Your task to perform on an android device: toggle javascript in the chrome app Image 0: 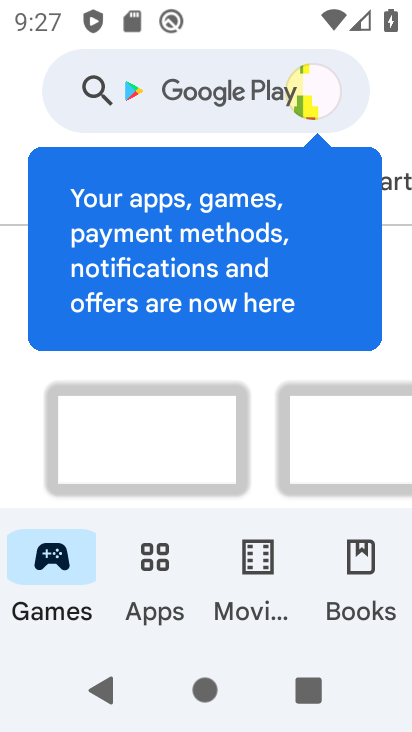
Step 0: press home button
Your task to perform on an android device: toggle javascript in the chrome app Image 1: 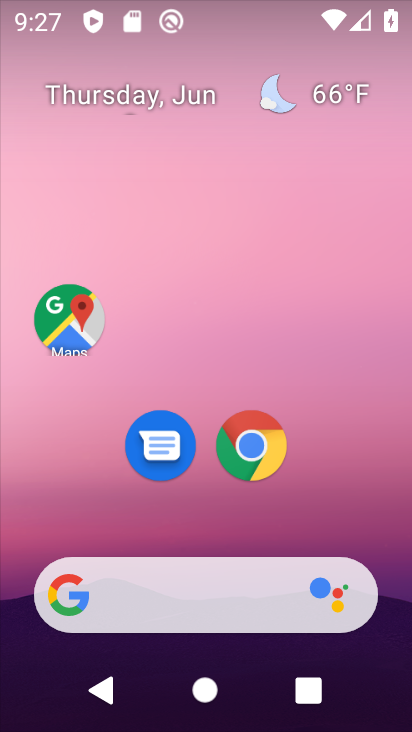
Step 1: click (259, 447)
Your task to perform on an android device: toggle javascript in the chrome app Image 2: 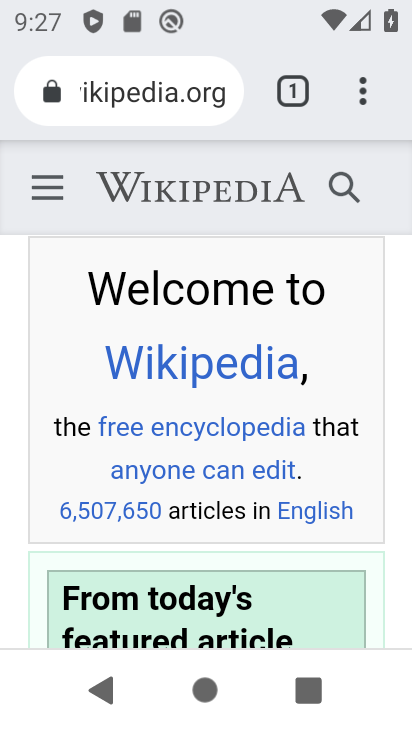
Step 2: click (358, 92)
Your task to perform on an android device: toggle javascript in the chrome app Image 3: 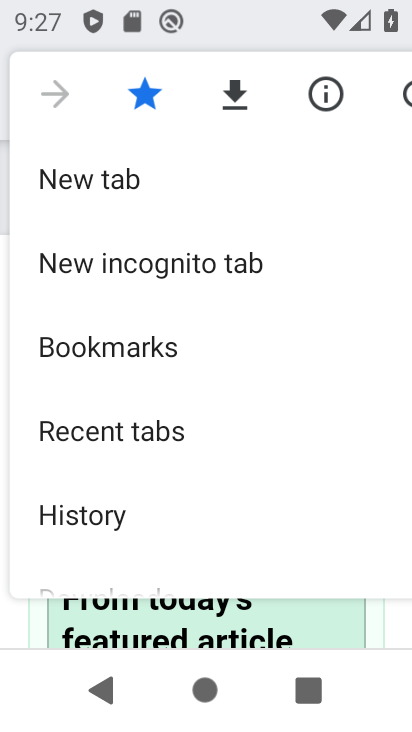
Step 3: drag from (142, 538) to (132, 174)
Your task to perform on an android device: toggle javascript in the chrome app Image 4: 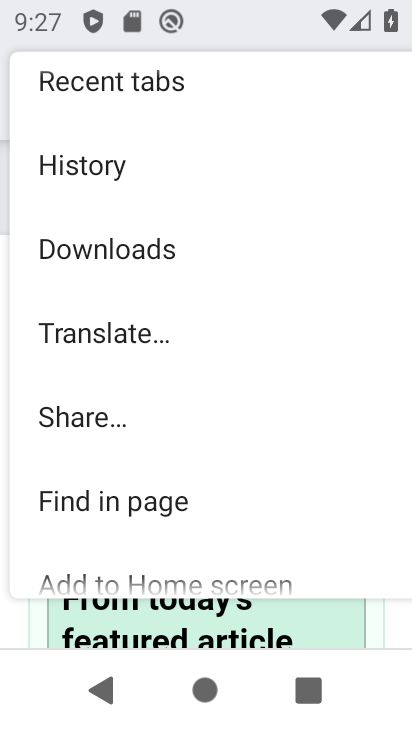
Step 4: drag from (119, 502) to (125, 97)
Your task to perform on an android device: toggle javascript in the chrome app Image 5: 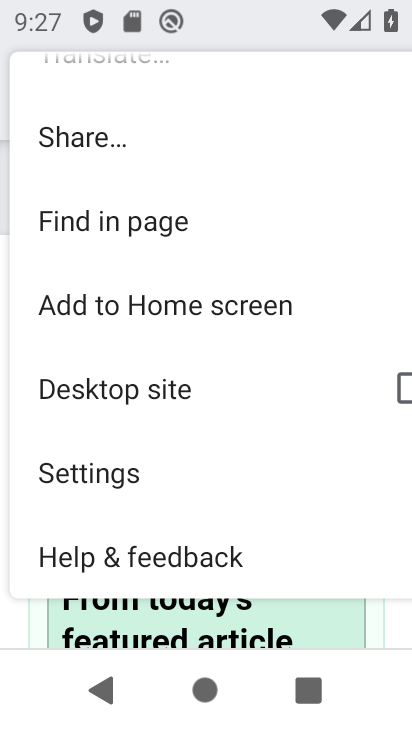
Step 5: click (99, 480)
Your task to perform on an android device: toggle javascript in the chrome app Image 6: 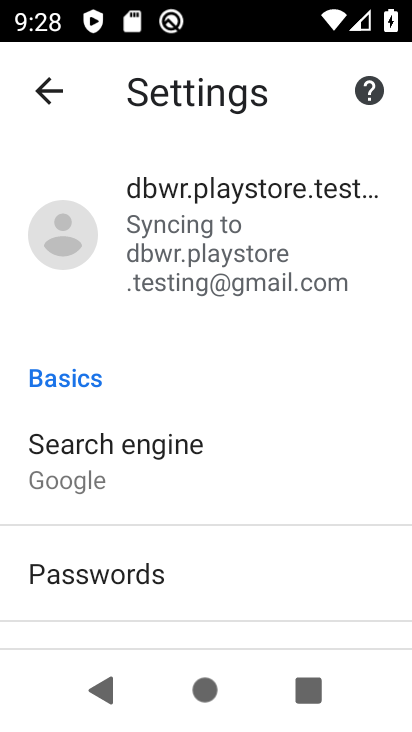
Step 6: drag from (152, 559) to (181, 203)
Your task to perform on an android device: toggle javascript in the chrome app Image 7: 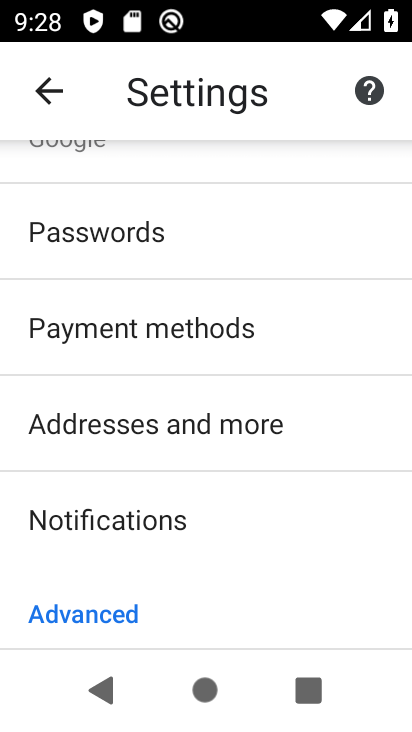
Step 7: drag from (189, 571) to (173, 3)
Your task to perform on an android device: toggle javascript in the chrome app Image 8: 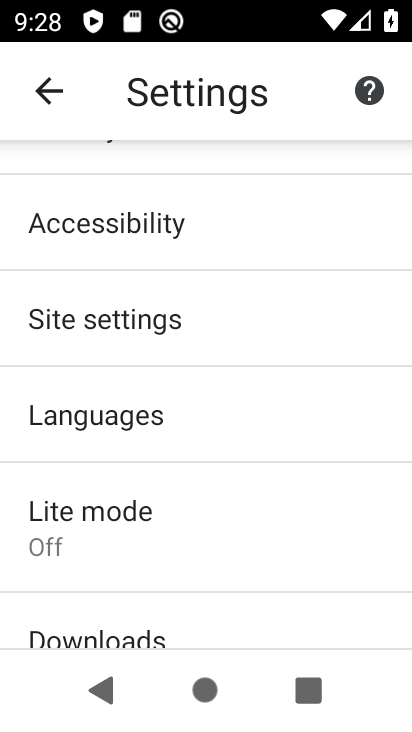
Step 8: drag from (114, 536) to (110, 23)
Your task to perform on an android device: toggle javascript in the chrome app Image 9: 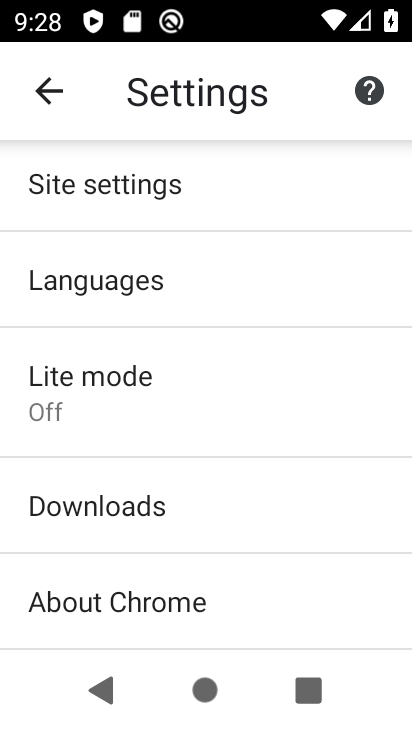
Step 9: drag from (226, 604) to (226, 204)
Your task to perform on an android device: toggle javascript in the chrome app Image 10: 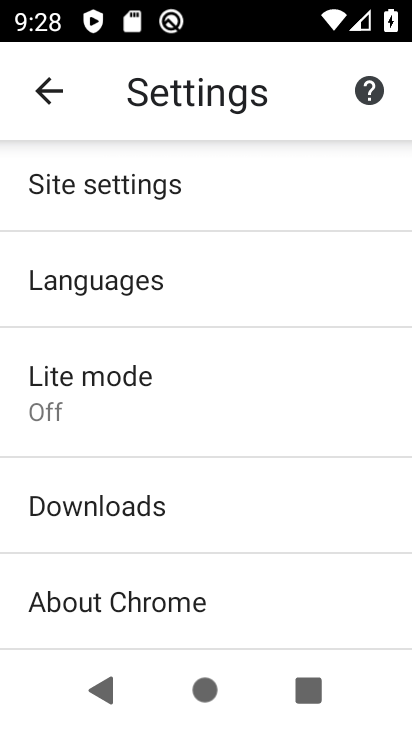
Step 10: click (210, 168)
Your task to perform on an android device: toggle javascript in the chrome app Image 11: 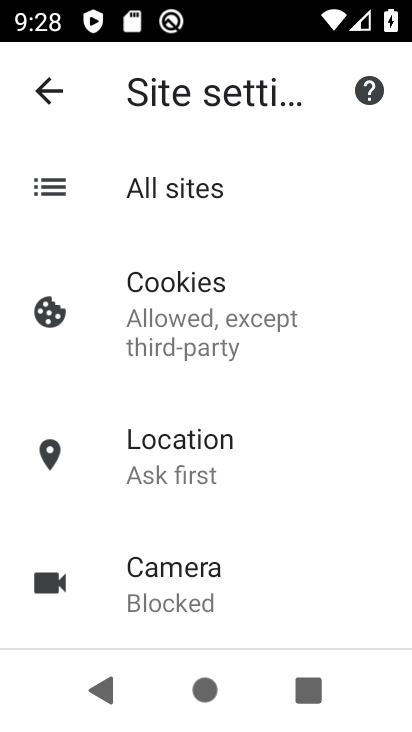
Step 11: drag from (275, 561) to (274, 61)
Your task to perform on an android device: toggle javascript in the chrome app Image 12: 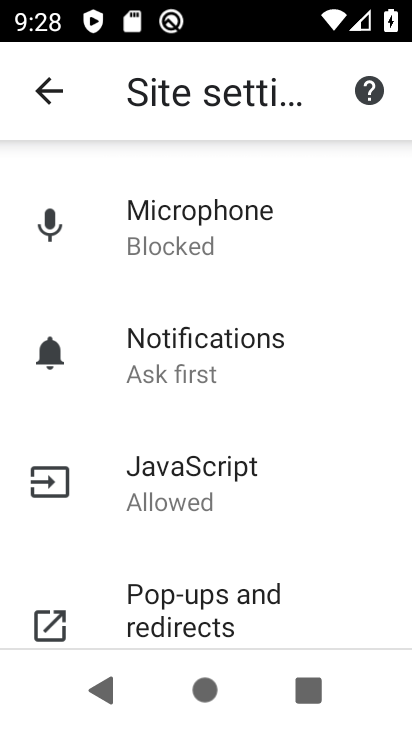
Step 12: click (232, 501)
Your task to perform on an android device: toggle javascript in the chrome app Image 13: 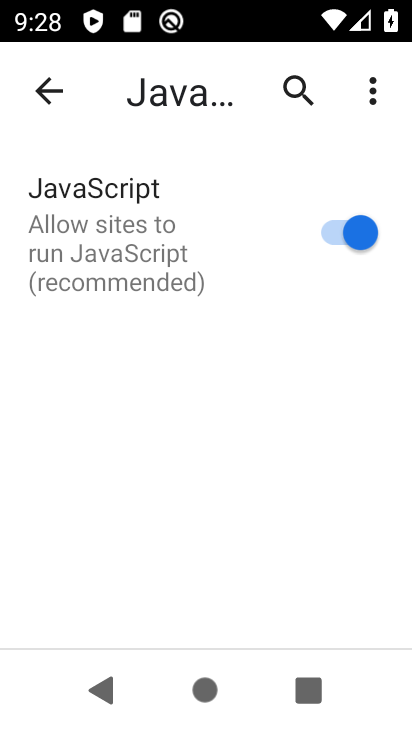
Step 13: click (343, 225)
Your task to perform on an android device: toggle javascript in the chrome app Image 14: 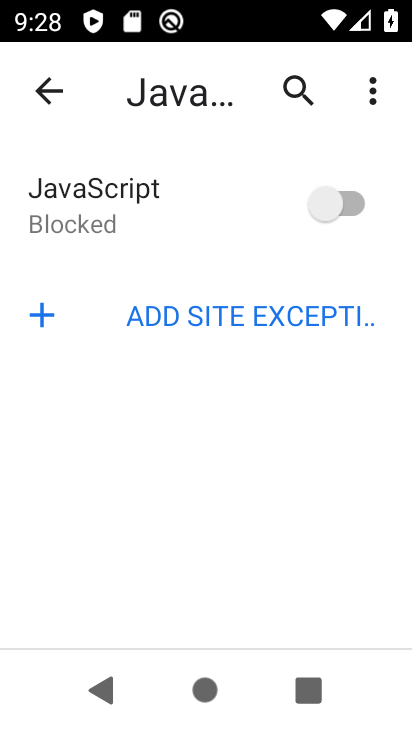
Step 14: task complete